Your task to perform on an android device: turn notification dots on Image 0: 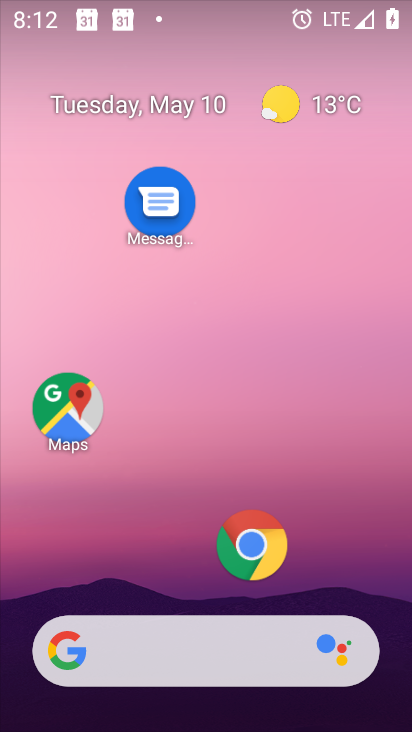
Step 0: drag from (205, 575) to (103, 0)
Your task to perform on an android device: turn notification dots on Image 1: 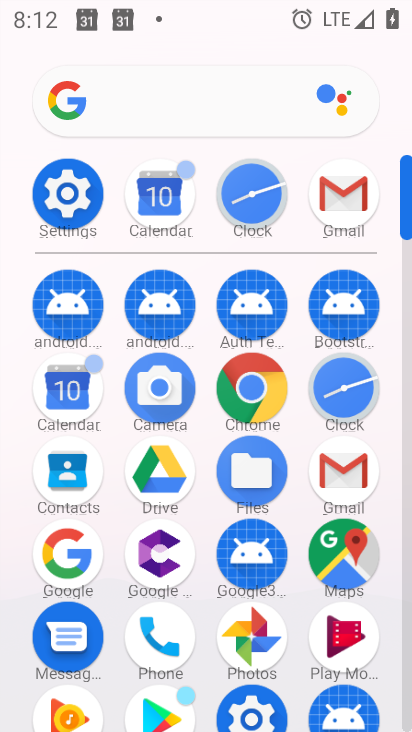
Step 1: click (63, 192)
Your task to perform on an android device: turn notification dots on Image 2: 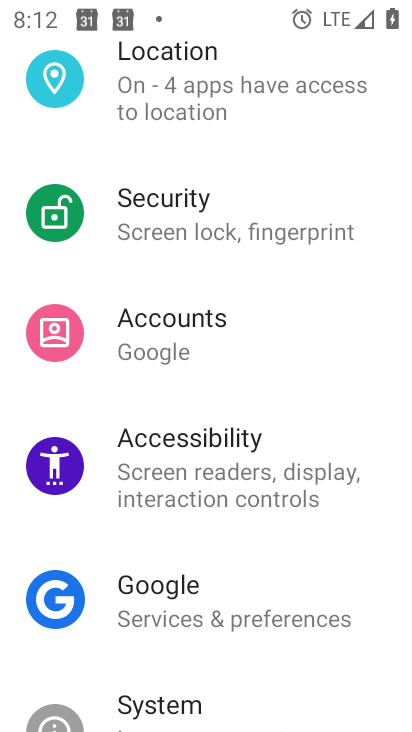
Step 2: drag from (190, 89) to (215, 694)
Your task to perform on an android device: turn notification dots on Image 3: 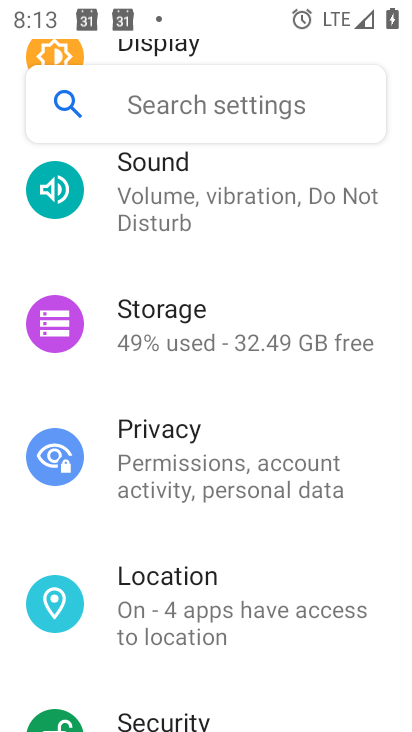
Step 3: drag from (205, 237) to (191, 730)
Your task to perform on an android device: turn notification dots on Image 4: 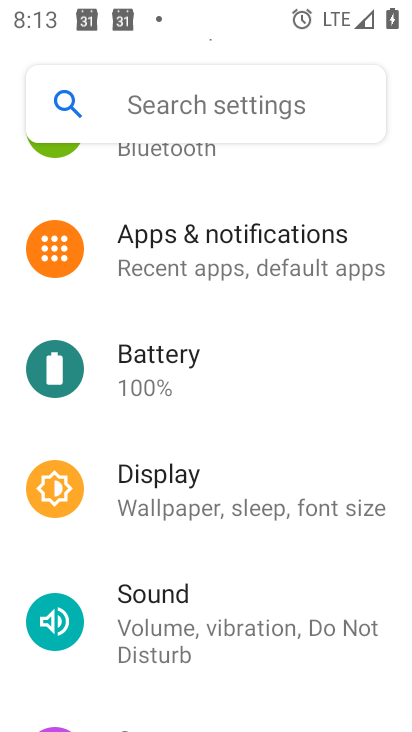
Step 4: click (184, 248)
Your task to perform on an android device: turn notification dots on Image 5: 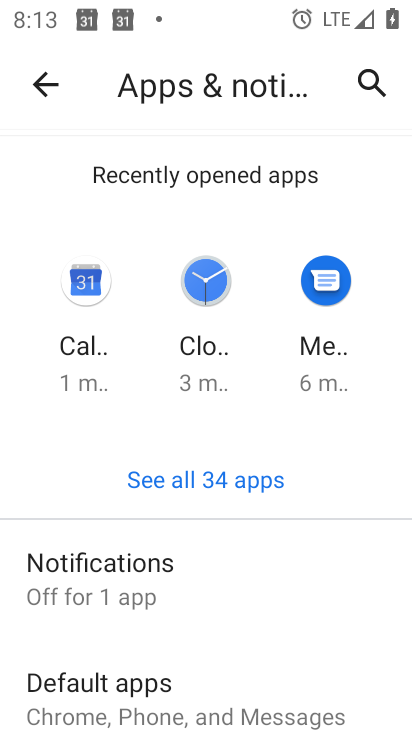
Step 5: click (185, 569)
Your task to perform on an android device: turn notification dots on Image 6: 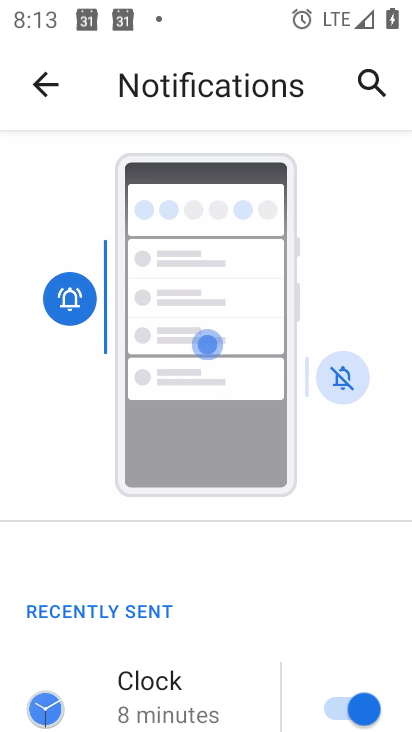
Step 6: drag from (228, 684) to (215, 178)
Your task to perform on an android device: turn notification dots on Image 7: 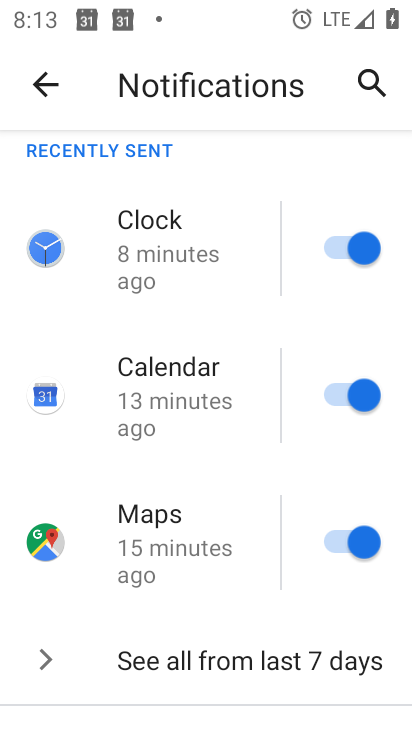
Step 7: drag from (206, 614) to (195, 168)
Your task to perform on an android device: turn notification dots on Image 8: 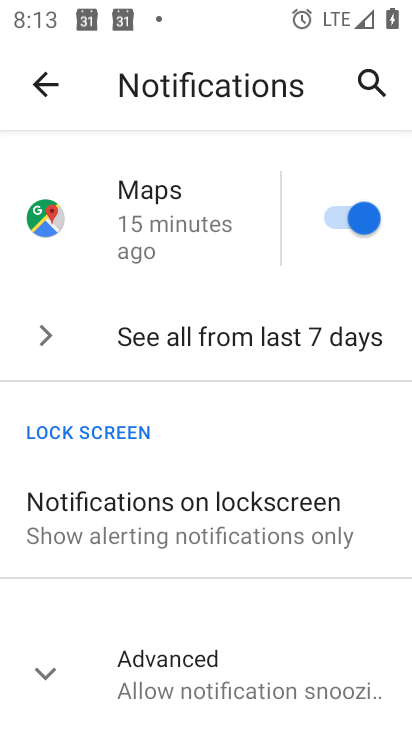
Step 8: click (154, 676)
Your task to perform on an android device: turn notification dots on Image 9: 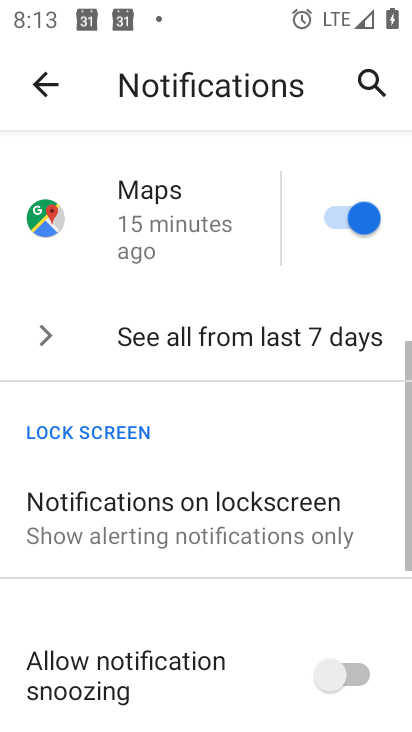
Step 9: task complete